Your task to perform on an android device: open the mobile data screen to see how much data has been used Image 0: 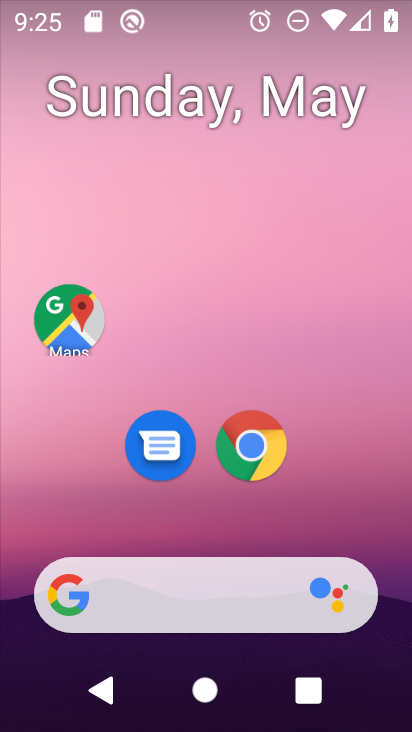
Step 0: drag from (259, 520) to (287, 173)
Your task to perform on an android device: open the mobile data screen to see how much data has been used Image 1: 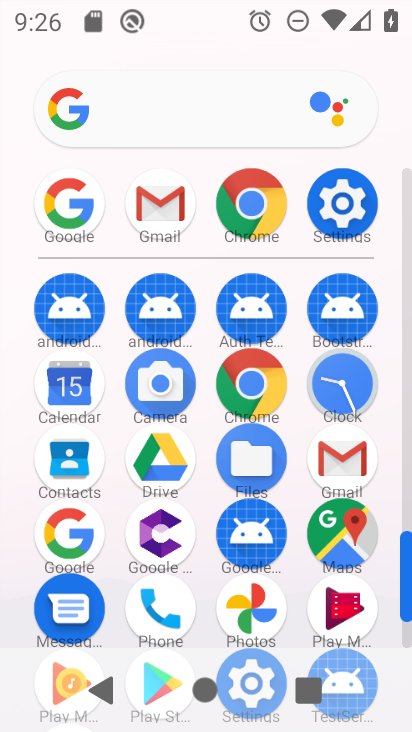
Step 1: click (330, 213)
Your task to perform on an android device: open the mobile data screen to see how much data has been used Image 2: 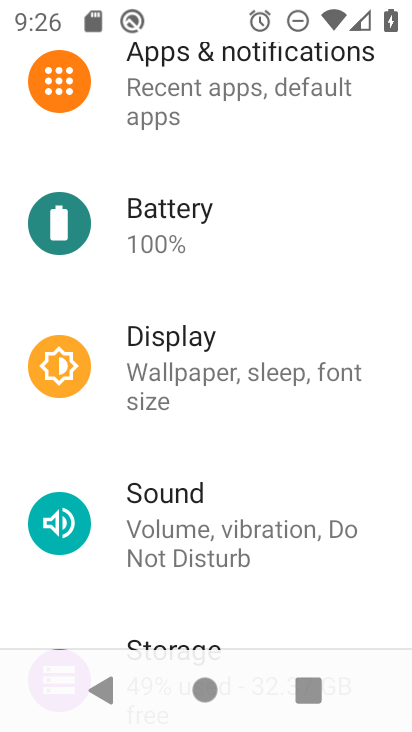
Step 2: drag from (192, 519) to (232, 236)
Your task to perform on an android device: open the mobile data screen to see how much data has been used Image 3: 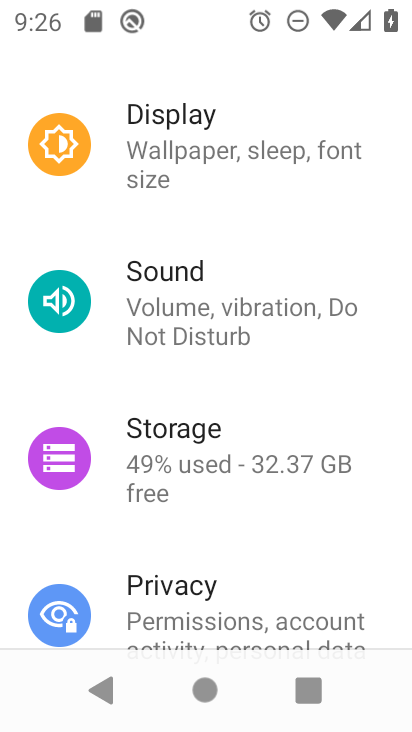
Step 3: drag from (193, 364) to (171, 702)
Your task to perform on an android device: open the mobile data screen to see how much data has been used Image 4: 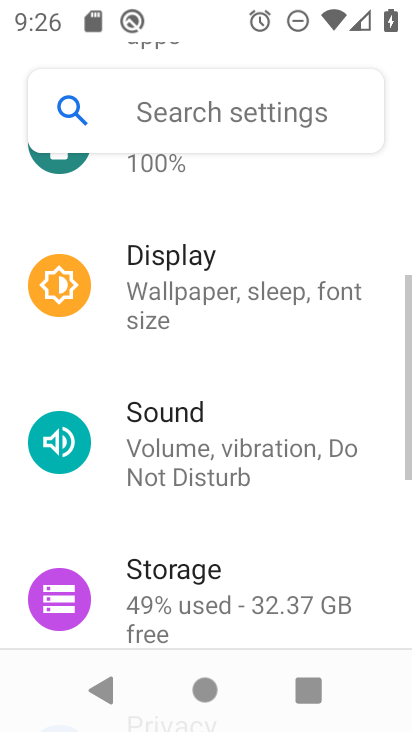
Step 4: drag from (234, 276) to (254, 532)
Your task to perform on an android device: open the mobile data screen to see how much data has been used Image 5: 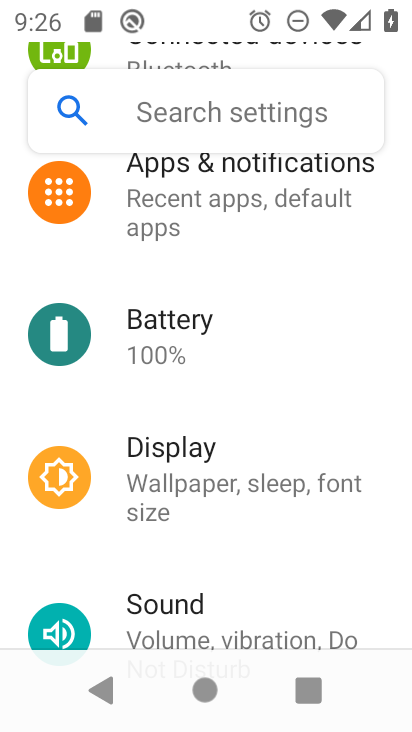
Step 5: drag from (251, 241) to (249, 526)
Your task to perform on an android device: open the mobile data screen to see how much data has been used Image 6: 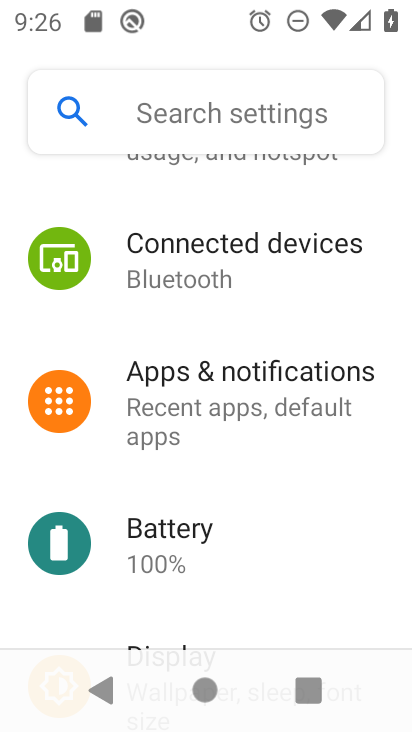
Step 6: drag from (281, 296) to (250, 523)
Your task to perform on an android device: open the mobile data screen to see how much data has been used Image 7: 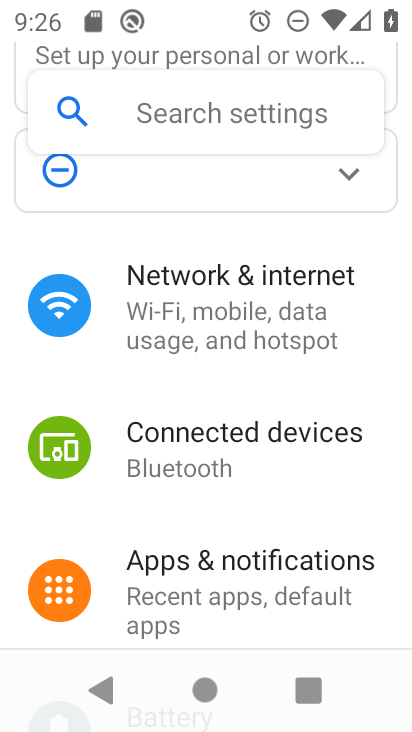
Step 7: click (227, 279)
Your task to perform on an android device: open the mobile data screen to see how much data has been used Image 8: 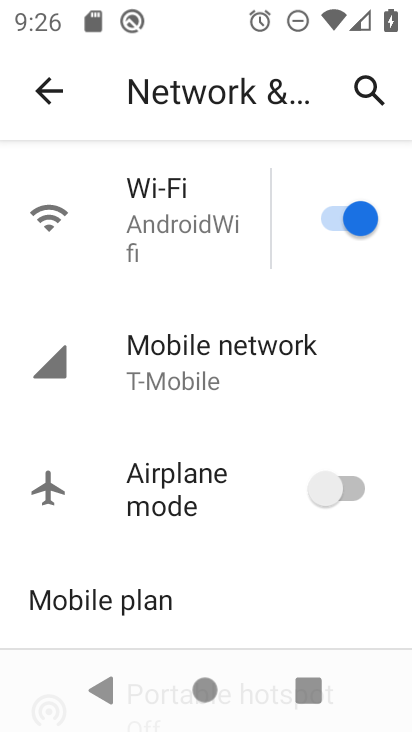
Step 8: drag from (176, 542) to (207, 222)
Your task to perform on an android device: open the mobile data screen to see how much data has been used Image 9: 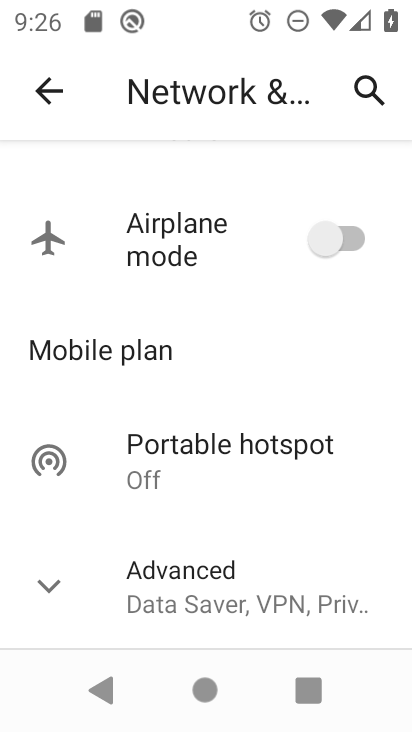
Step 9: drag from (196, 248) to (200, 571)
Your task to perform on an android device: open the mobile data screen to see how much data has been used Image 10: 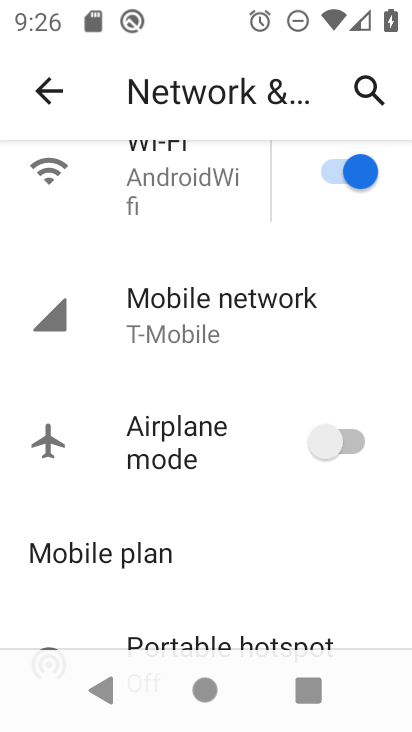
Step 10: click (194, 343)
Your task to perform on an android device: open the mobile data screen to see how much data has been used Image 11: 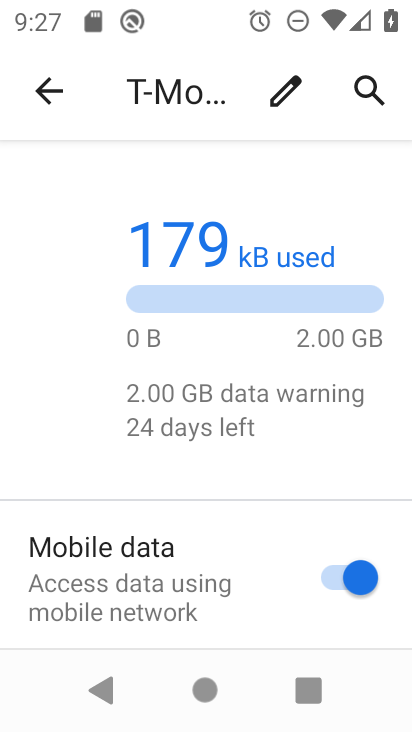
Step 11: task complete